Your task to perform on an android device: find photos in the google photos app Image 0: 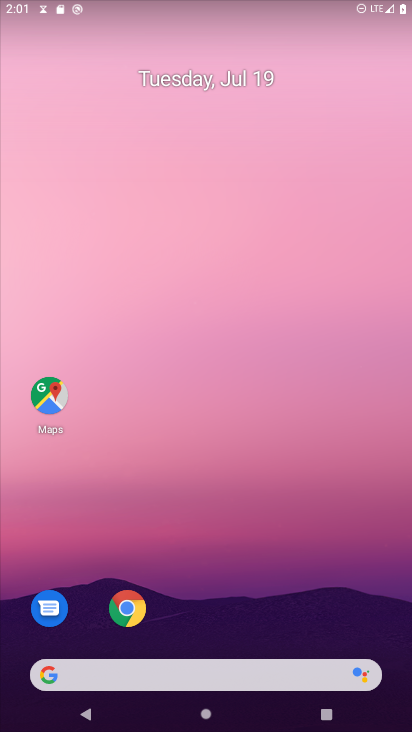
Step 0: drag from (329, 675) to (344, 112)
Your task to perform on an android device: find photos in the google photos app Image 1: 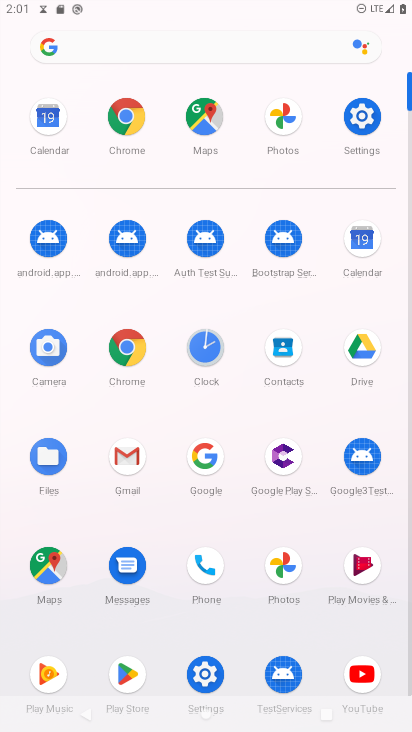
Step 1: click (281, 564)
Your task to perform on an android device: find photos in the google photos app Image 2: 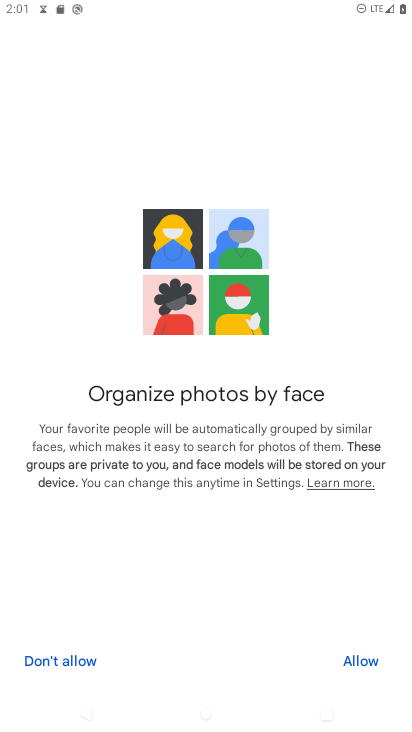
Step 2: click (363, 660)
Your task to perform on an android device: find photos in the google photos app Image 3: 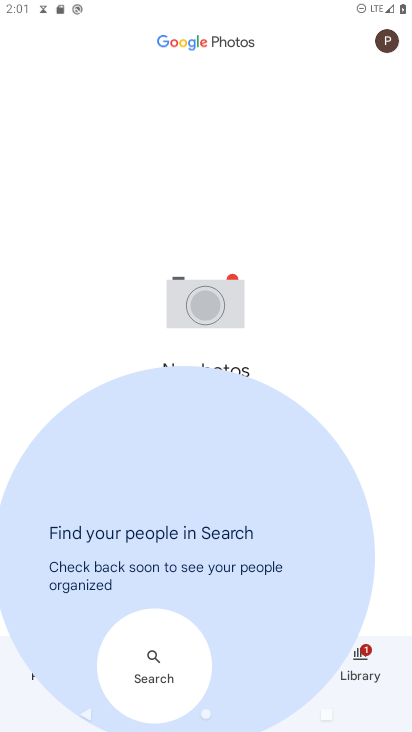
Step 3: click (393, 382)
Your task to perform on an android device: find photos in the google photos app Image 4: 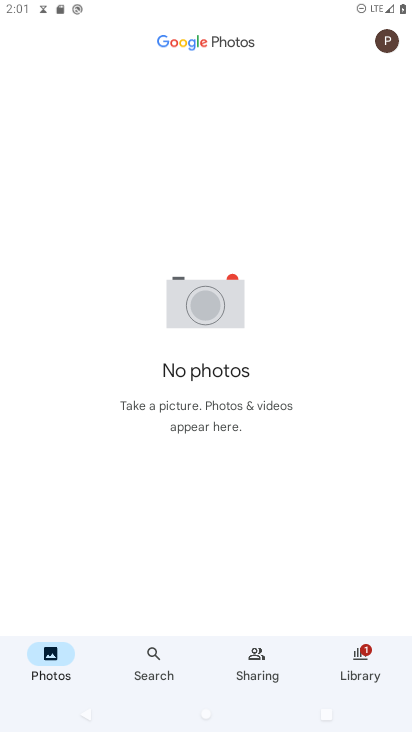
Step 4: task complete